Your task to perform on an android device: Open Youtube and go to the subscriptions tab Image 0: 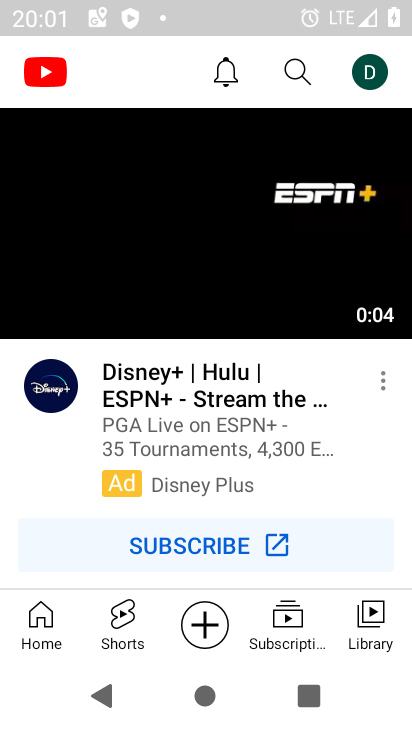
Step 0: click (283, 614)
Your task to perform on an android device: Open Youtube and go to the subscriptions tab Image 1: 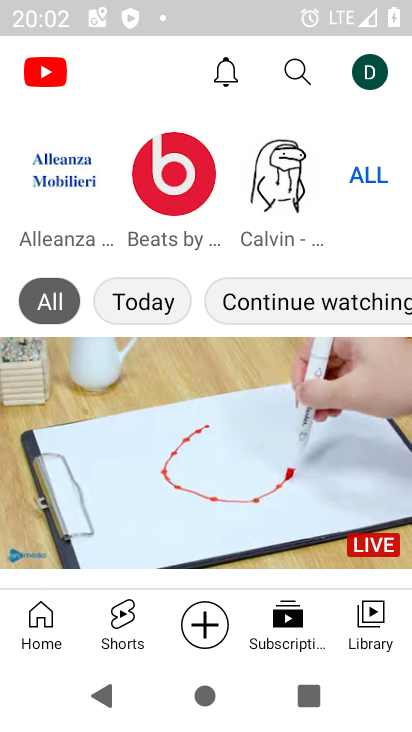
Step 1: task complete